Your task to perform on an android device: Go to Amazon Image 0: 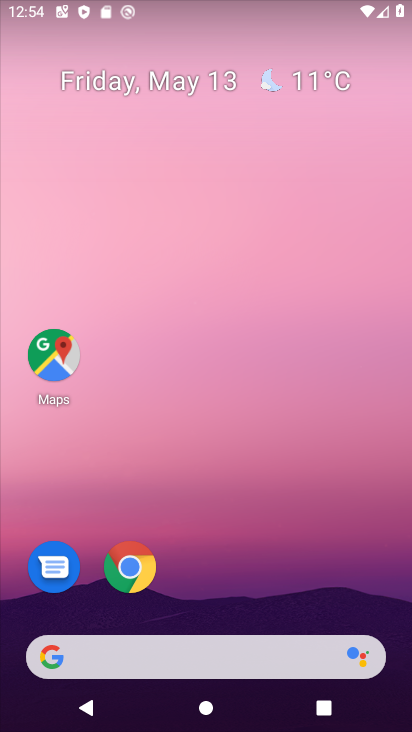
Step 0: click (143, 584)
Your task to perform on an android device: Go to Amazon Image 1: 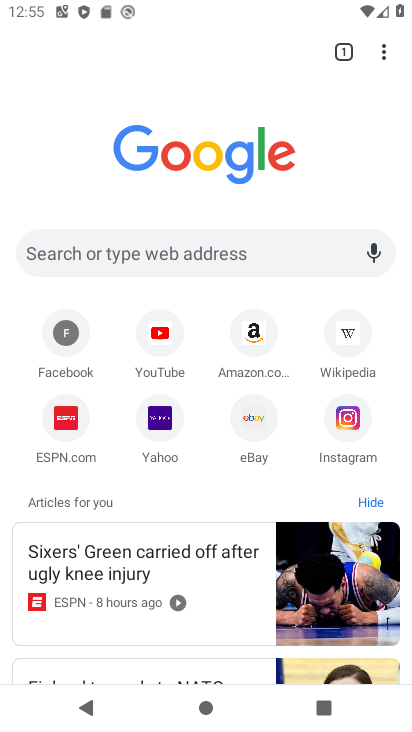
Step 1: click (242, 338)
Your task to perform on an android device: Go to Amazon Image 2: 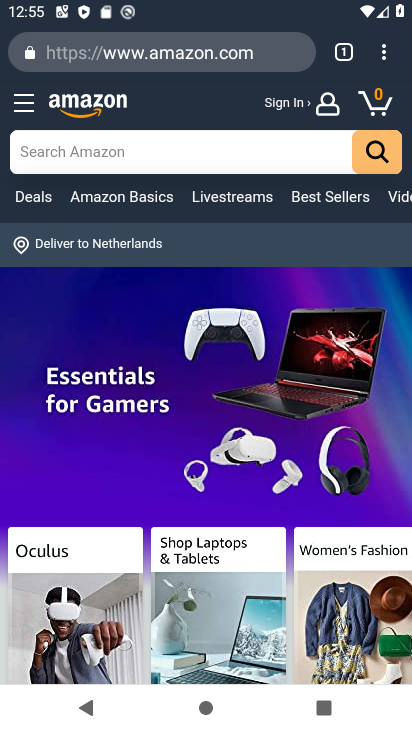
Step 2: task complete